Your task to perform on an android device: Open the phone app and click the voicemail tab. Image 0: 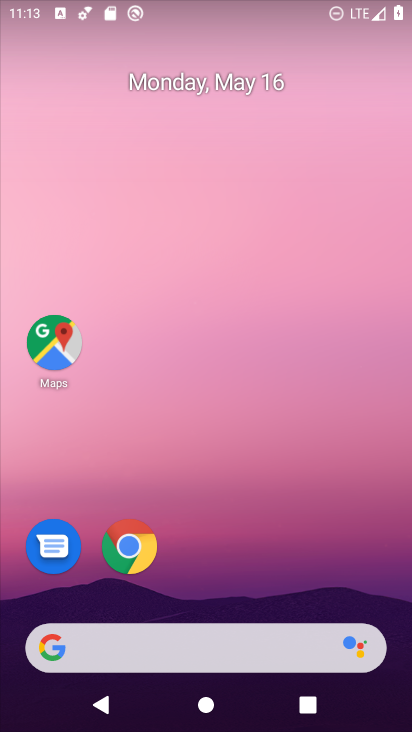
Step 0: drag from (235, 615) to (213, 259)
Your task to perform on an android device: Open the phone app and click the voicemail tab. Image 1: 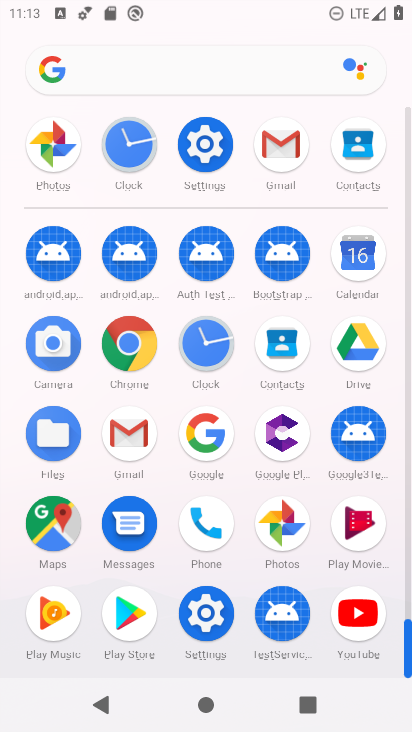
Step 1: click (206, 523)
Your task to perform on an android device: Open the phone app and click the voicemail tab. Image 2: 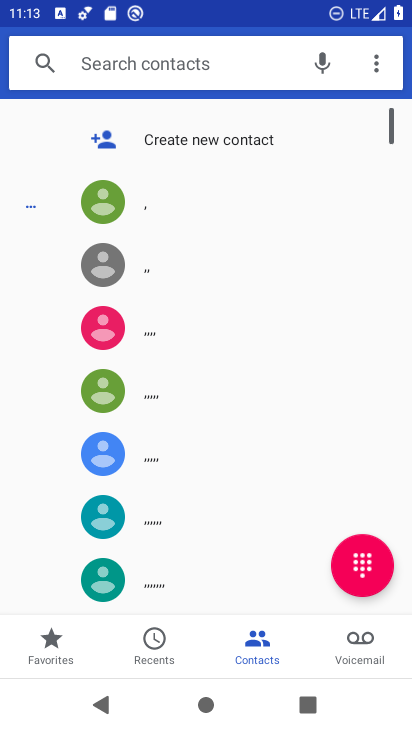
Step 2: click (350, 646)
Your task to perform on an android device: Open the phone app and click the voicemail tab. Image 3: 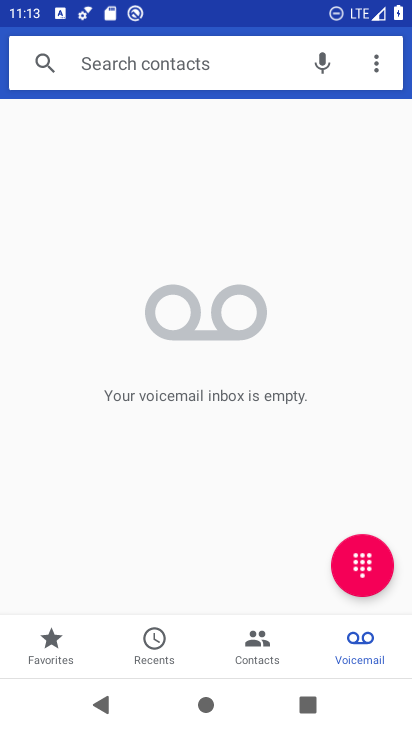
Step 3: task complete